Your task to perform on an android device: What's the weather going to be this weekend? Image 0: 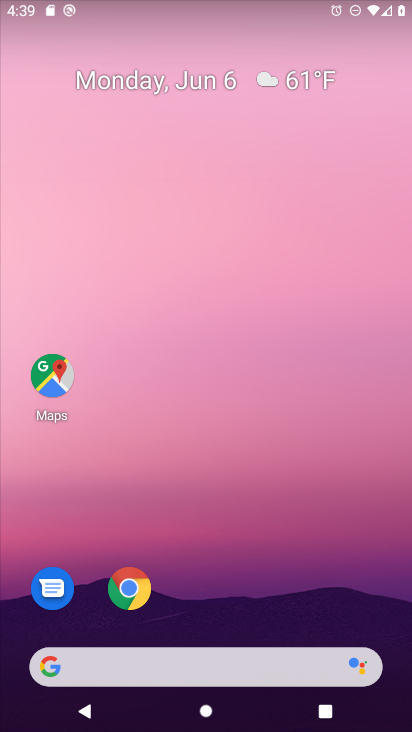
Step 0: drag from (250, 613) to (208, 229)
Your task to perform on an android device: What's the weather going to be this weekend? Image 1: 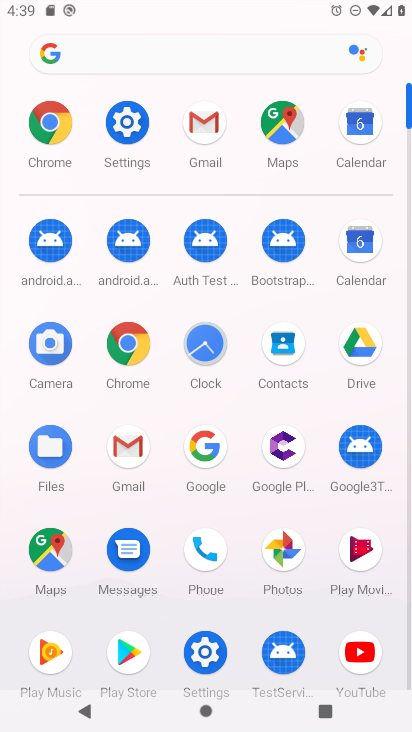
Step 1: click (47, 112)
Your task to perform on an android device: What's the weather going to be this weekend? Image 2: 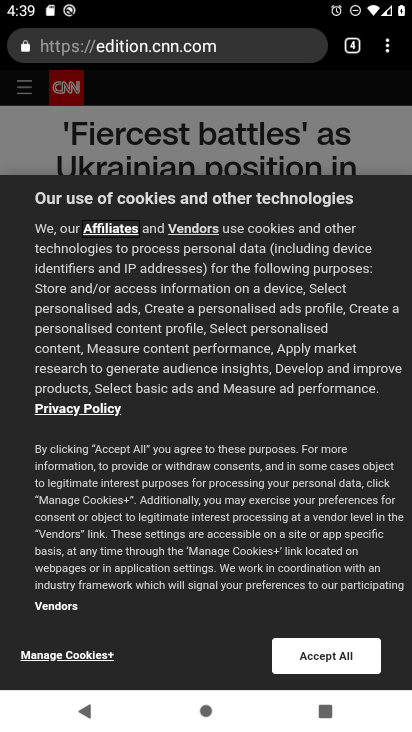
Step 2: click (202, 47)
Your task to perform on an android device: What's the weather going to be this weekend? Image 3: 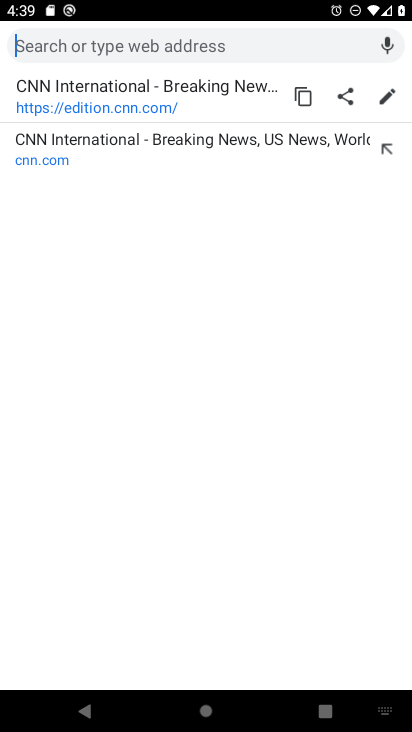
Step 3: type "What's the weather going to be this weekend?"
Your task to perform on an android device: What's the weather going to be this weekend? Image 4: 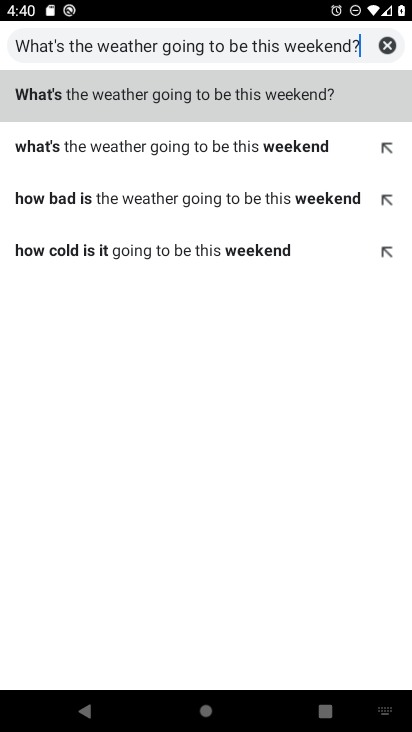
Step 4: press enter
Your task to perform on an android device: What's the weather going to be this weekend? Image 5: 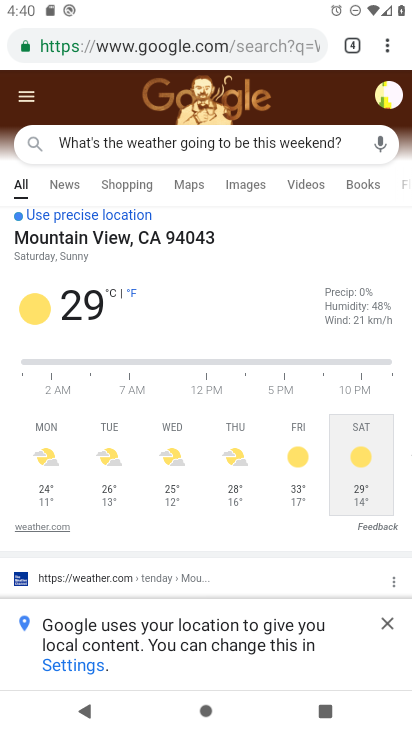
Step 5: task complete